Your task to perform on an android device: What's the weather going to be this weekend? Image 0: 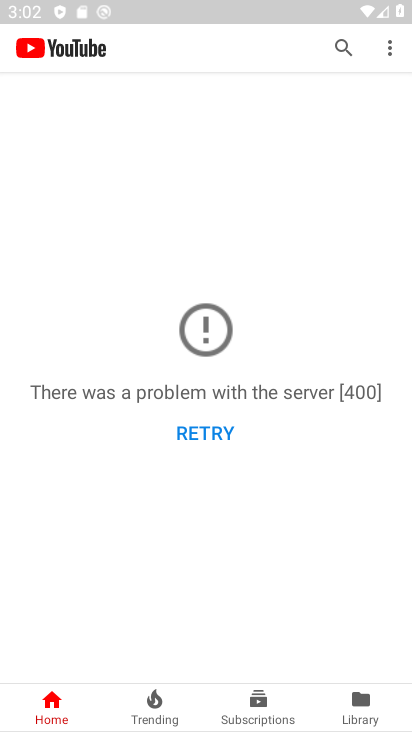
Step 0: press home button
Your task to perform on an android device: What's the weather going to be this weekend? Image 1: 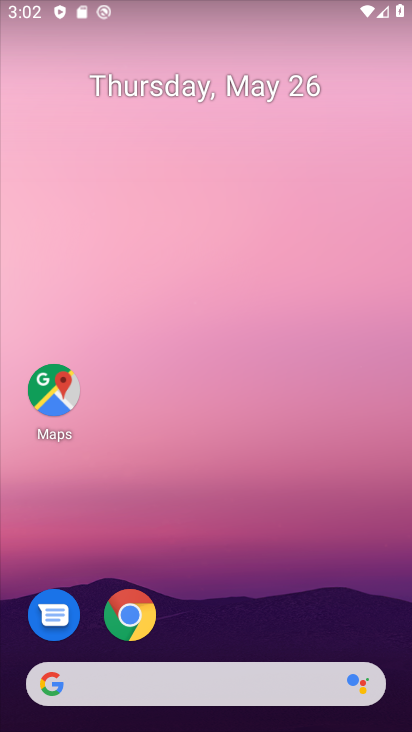
Step 1: drag from (45, 187) to (409, 175)
Your task to perform on an android device: What's the weather going to be this weekend? Image 2: 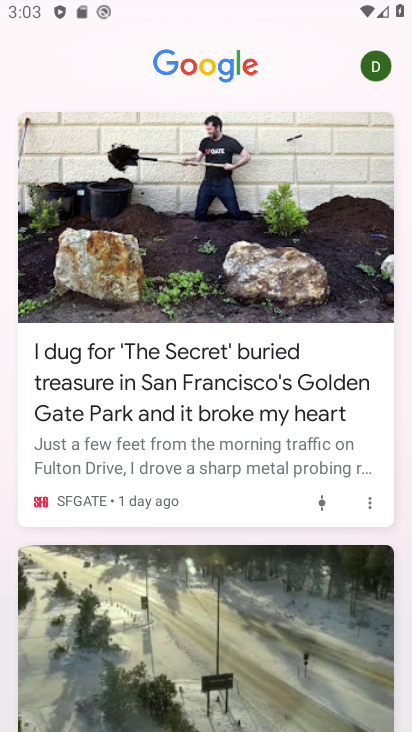
Step 2: press back button
Your task to perform on an android device: What's the weather going to be this weekend? Image 3: 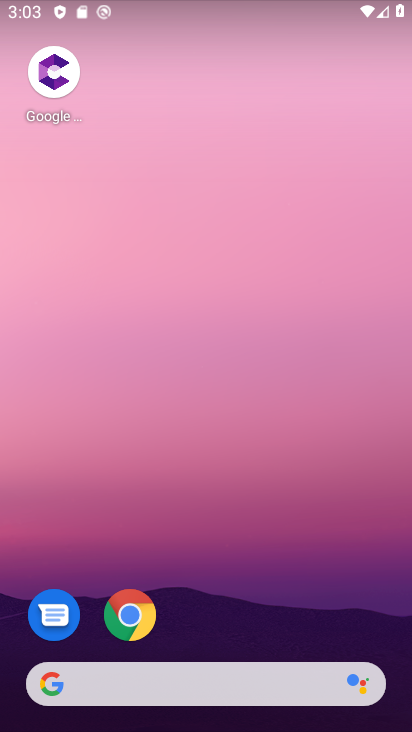
Step 3: click (199, 681)
Your task to perform on an android device: What's the weather going to be this weekend? Image 4: 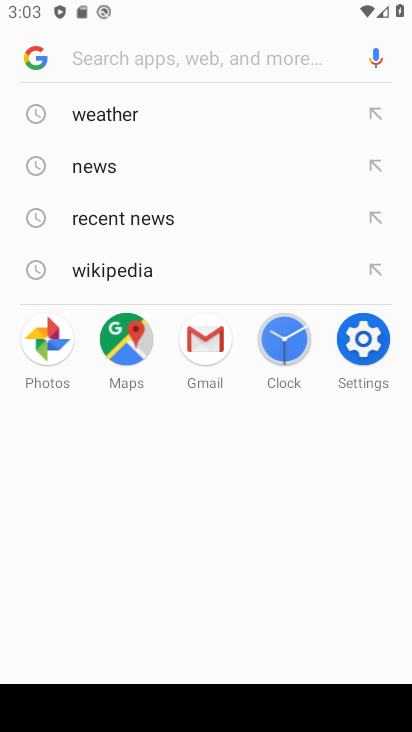
Step 4: type "weather this weekend"
Your task to perform on an android device: What's the weather going to be this weekend? Image 5: 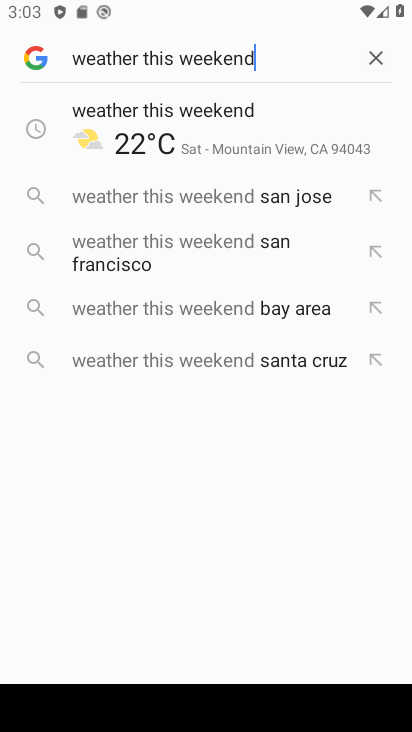
Step 5: click (219, 102)
Your task to perform on an android device: What's the weather going to be this weekend? Image 6: 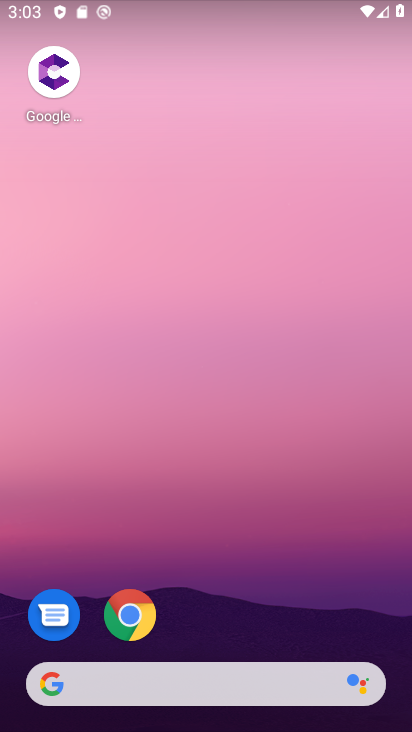
Step 6: task complete